Your task to perform on an android device: Do I have any events today? Image 0: 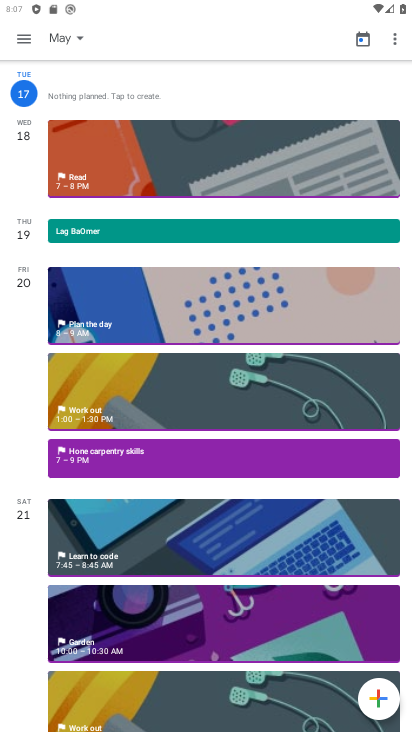
Step 0: press home button
Your task to perform on an android device: Do I have any events today? Image 1: 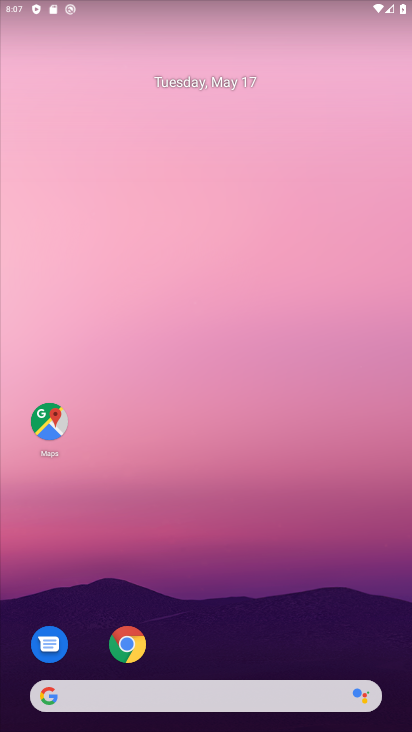
Step 1: drag from (281, 608) to (263, 70)
Your task to perform on an android device: Do I have any events today? Image 2: 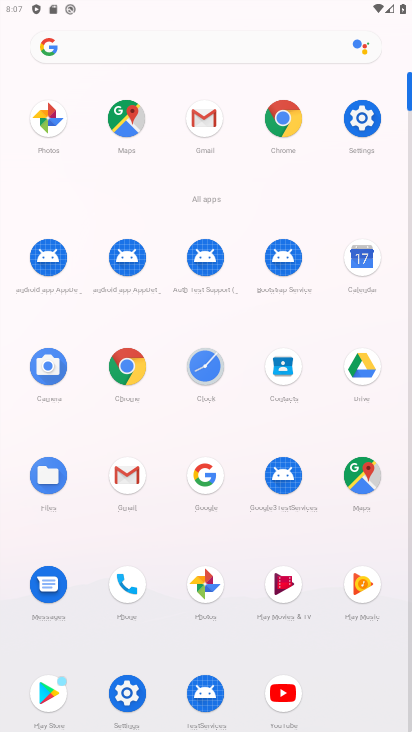
Step 2: click (360, 242)
Your task to perform on an android device: Do I have any events today? Image 3: 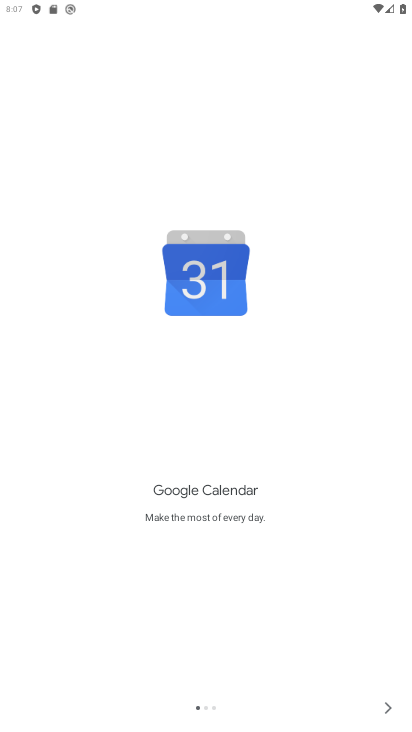
Step 3: click (367, 705)
Your task to perform on an android device: Do I have any events today? Image 4: 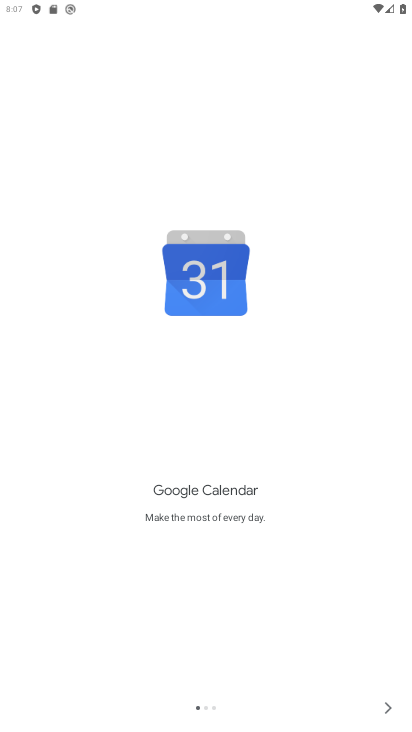
Step 4: click (378, 707)
Your task to perform on an android device: Do I have any events today? Image 5: 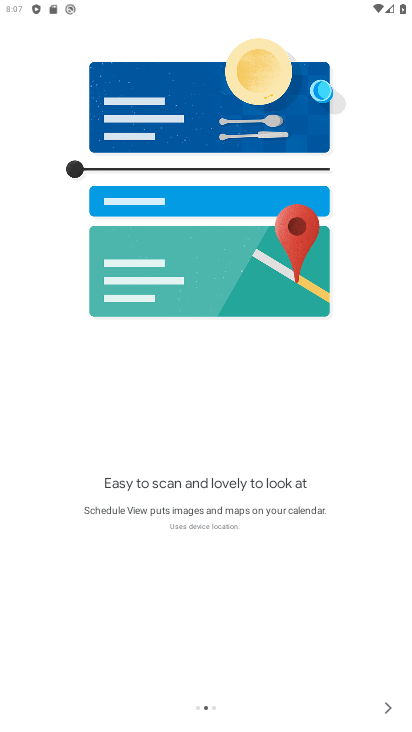
Step 5: click (378, 707)
Your task to perform on an android device: Do I have any events today? Image 6: 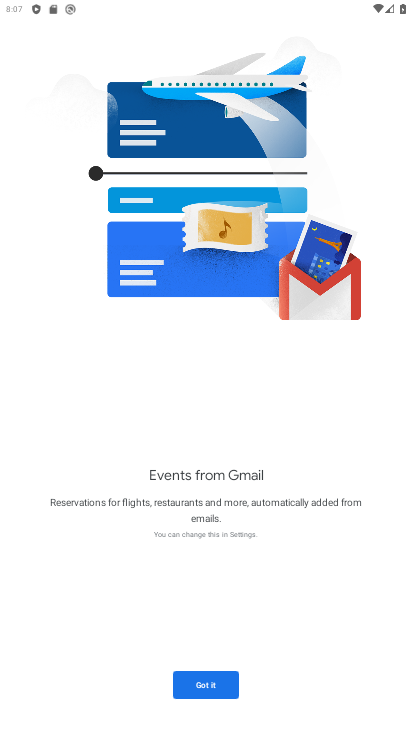
Step 6: click (198, 685)
Your task to perform on an android device: Do I have any events today? Image 7: 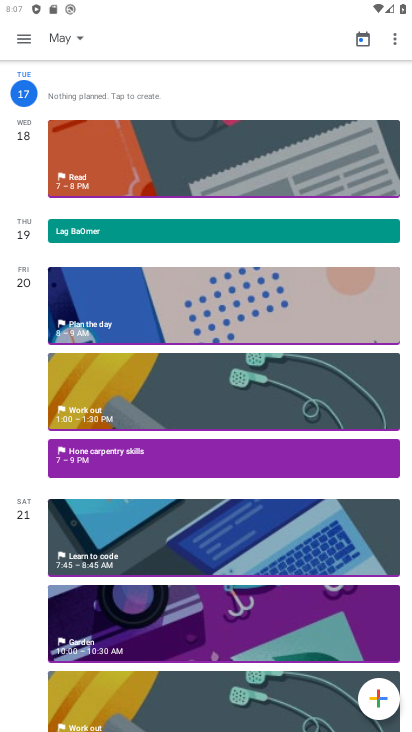
Step 7: click (77, 41)
Your task to perform on an android device: Do I have any events today? Image 8: 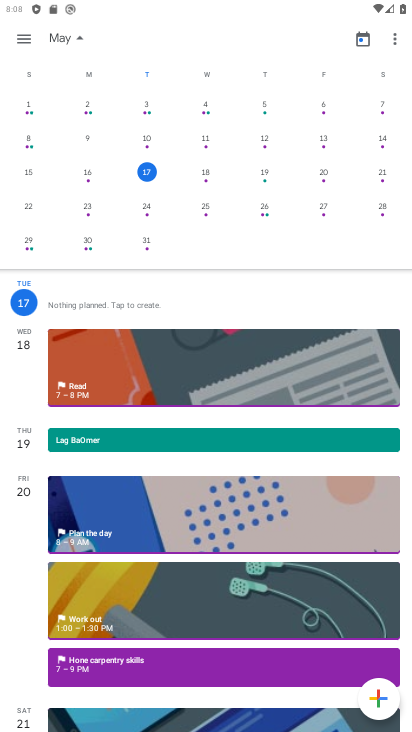
Step 8: click (203, 174)
Your task to perform on an android device: Do I have any events today? Image 9: 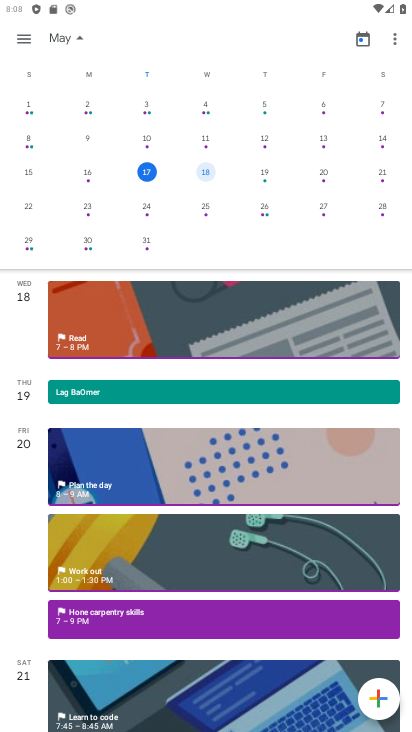
Step 9: task complete